Your task to perform on an android device: empty trash in the gmail app Image 0: 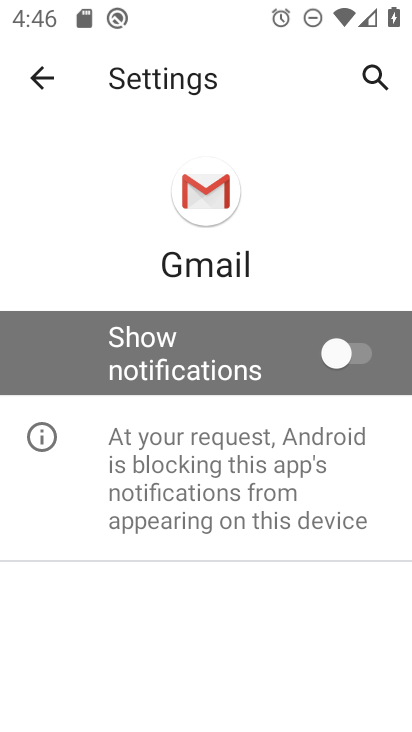
Step 0: press back button
Your task to perform on an android device: empty trash in the gmail app Image 1: 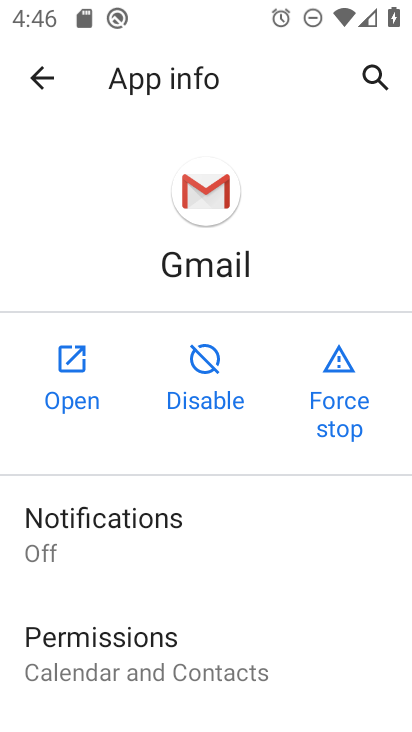
Step 1: press back button
Your task to perform on an android device: empty trash in the gmail app Image 2: 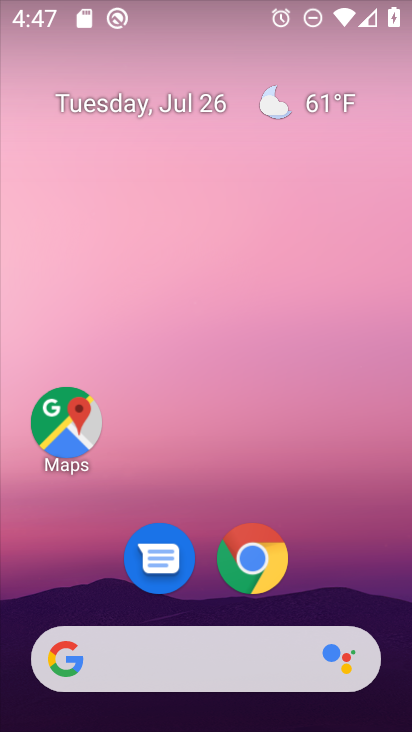
Step 2: drag from (44, 568) to (237, 33)
Your task to perform on an android device: empty trash in the gmail app Image 3: 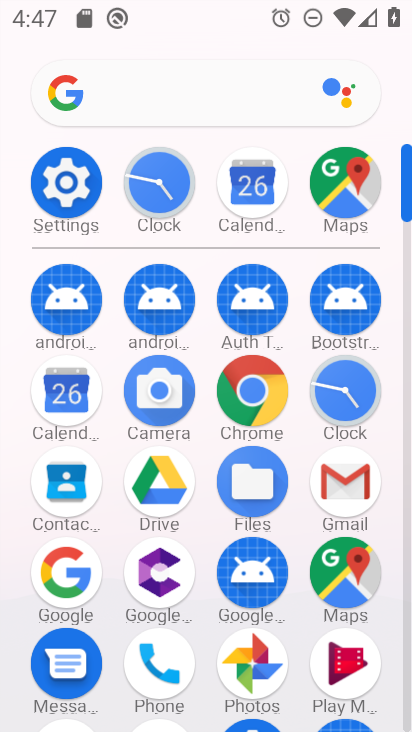
Step 3: click (340, 485)
Your task to perform on an android device: empty trash in the gmail app Image 4: 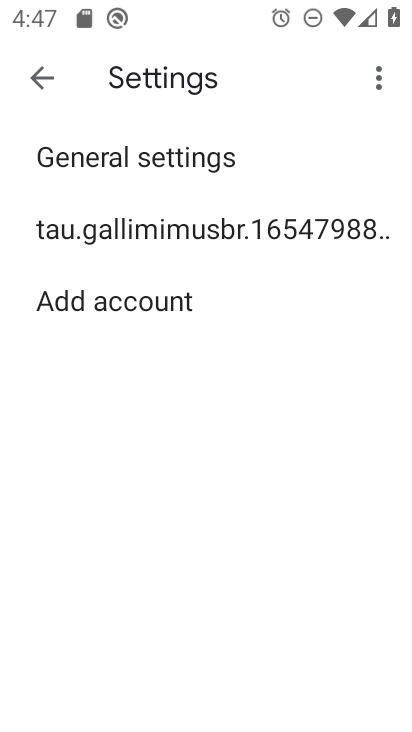
Step 4: click (120, 218)
Your task to perform on an android device: empty trash in the gmail app Image 5: 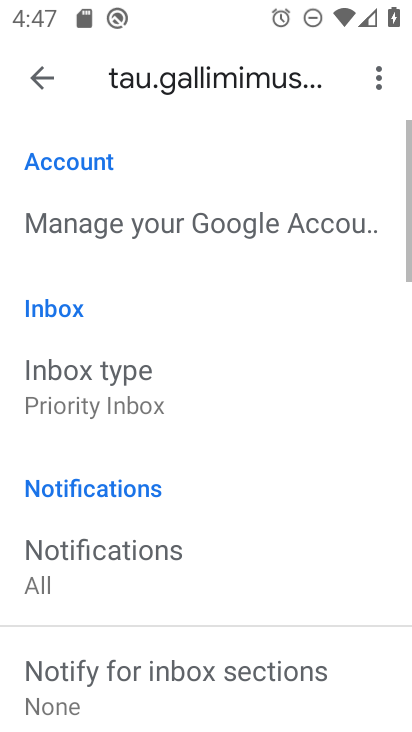
Step 5: click (39, 82)
Your task to perform on an android device: empty trash in the gmail app Image 6: 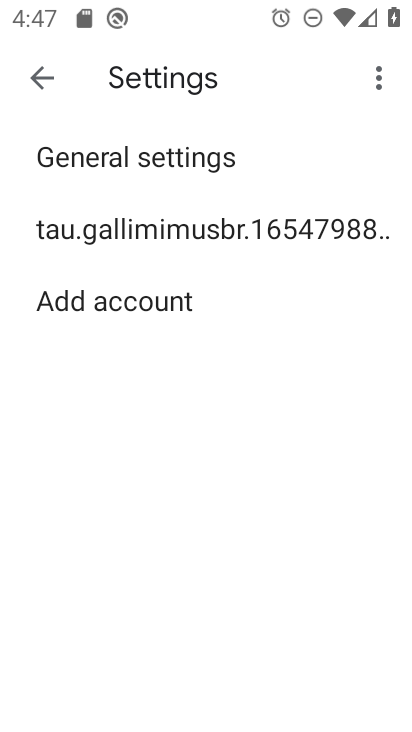
Step 6: click (39, 82)
Your task to perform on an android device: empty trash in the gmail app Image 7: 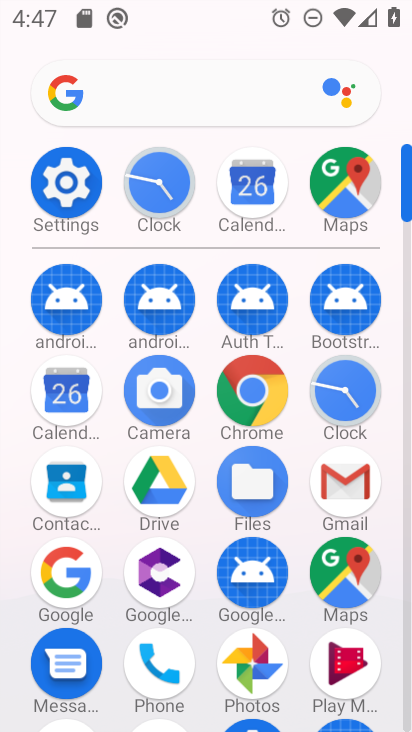
Step 7: click (339, 496)
Your task to perform on an android device: empty trash in the gmail app Image 8: 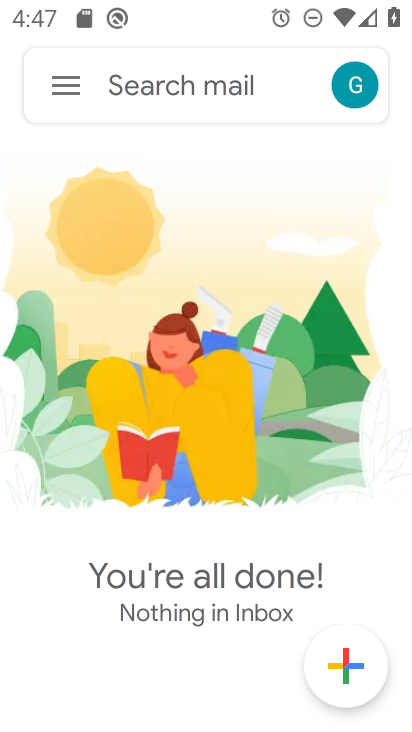
Step 8: click (70, 67)
Your task to perform on an android device: empty trash in the gmail app Image 9: 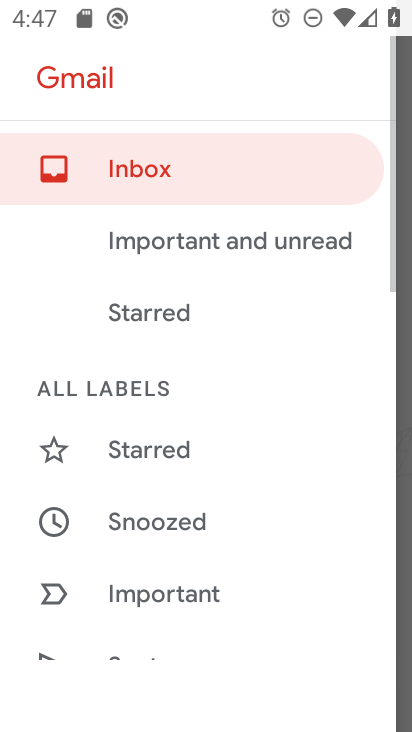
Step 9: drag from (179, 596) to (250, 160)
Your task to perform on an android device: empty trash in the gmail app Image 10: 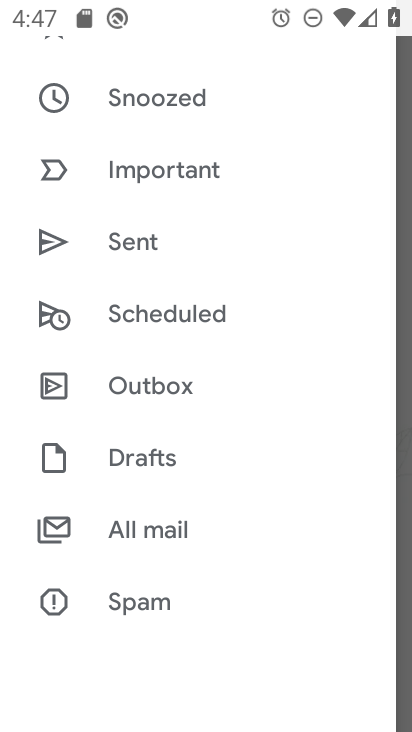
Step 10: drag from (174, 602) to (203, 107)
Your task to perform on an android device: empty trash in the gmail app Image 11: 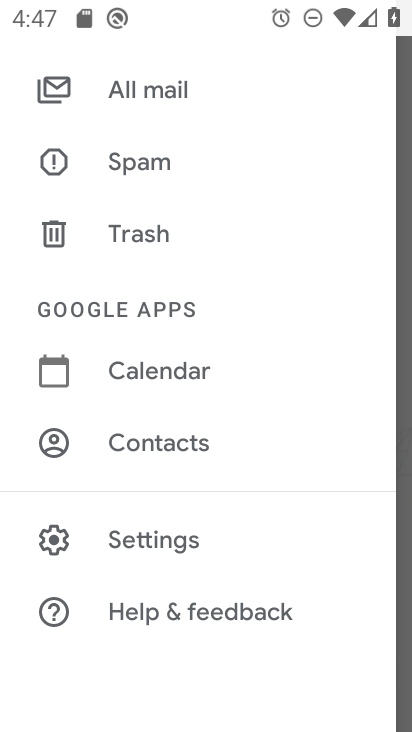
Step 11: click (143, 223)
Your task to perform on an android device: empty trash in the gmail app Image 12: 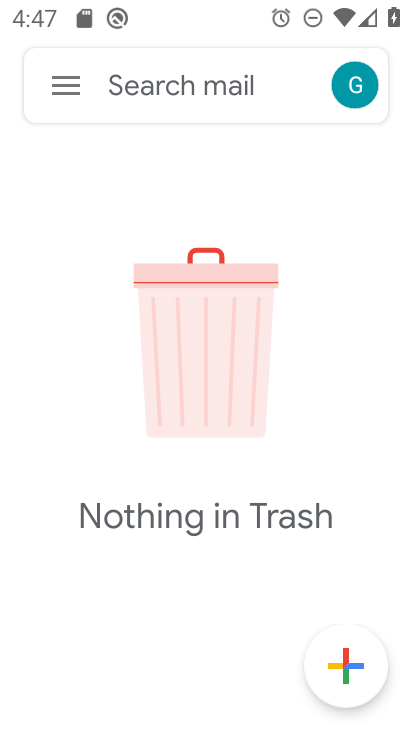
Step 12: task complete